Your task to perform on an android device: Search for vegetarian restaurants on Maps Image 0: 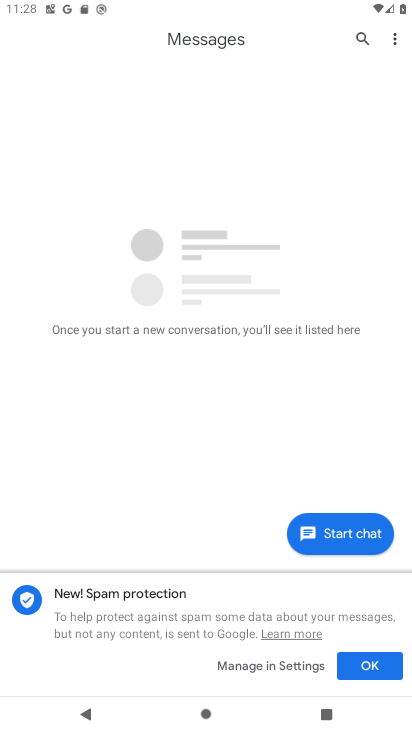
Step 0: press home button
Your task to perform on an android device: Search for vegetarian restaurants on Maps Image 1: 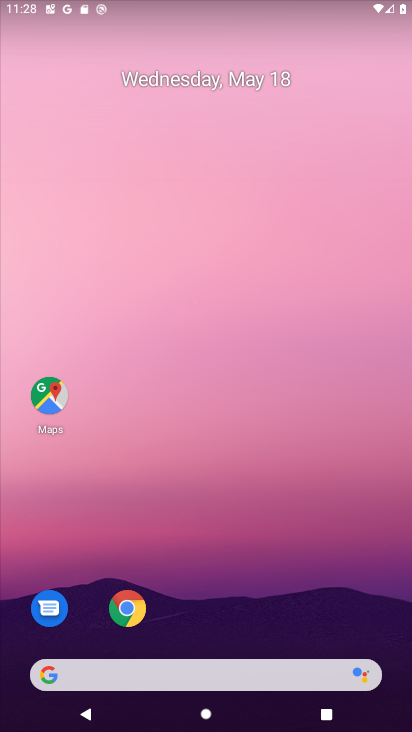
Step 1: click (50, 383)
Your task to perform on an android device: Search for vegetarian restaurants on Maps Image 2: 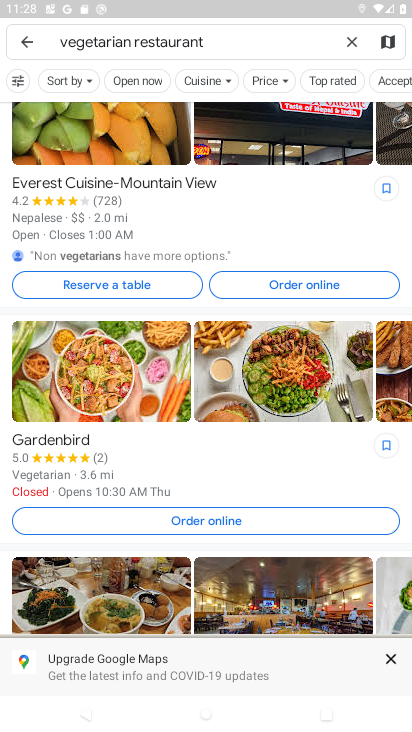
Step 2: task complete